Your task to perform on an android device: Open Chrome and go to the settings page Image 0: 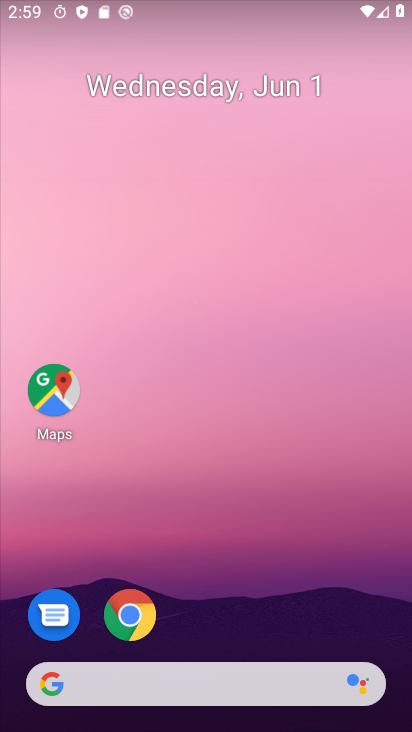
Step 0: drag from (332, 697) to (370, 33)
Your task to perform on an android device: Open Chrome and go to the settings page Image 1: 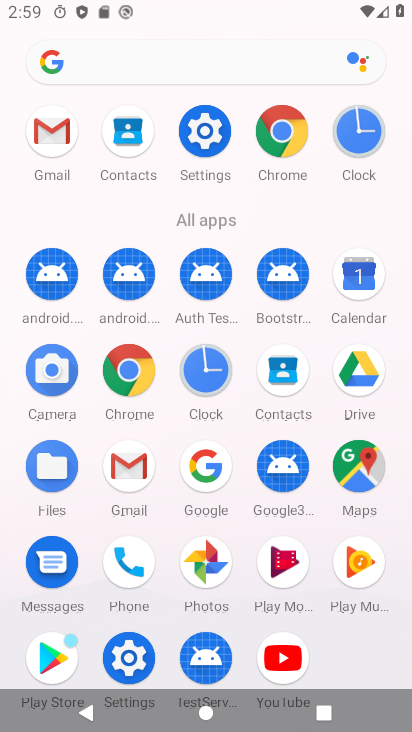
Step 1: click (130, 373)
Your task to perform on an android device: Open Chrome and go to the settings page Image 2: 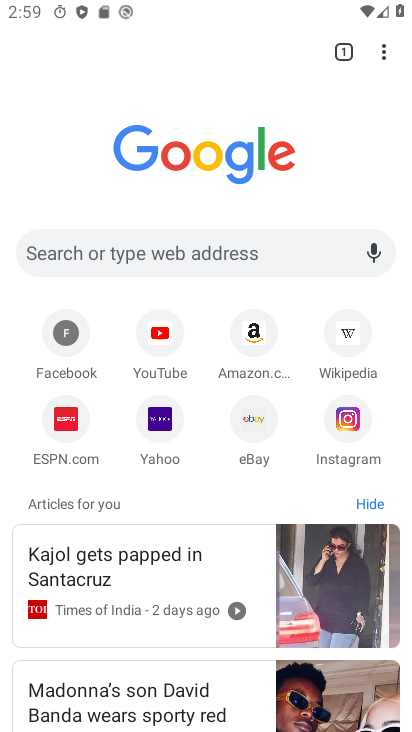
Step 2: drag from (391, 54) to (233, 446)
Your task to perform on an android device: Open Chrome and go to the settings page Image 3: 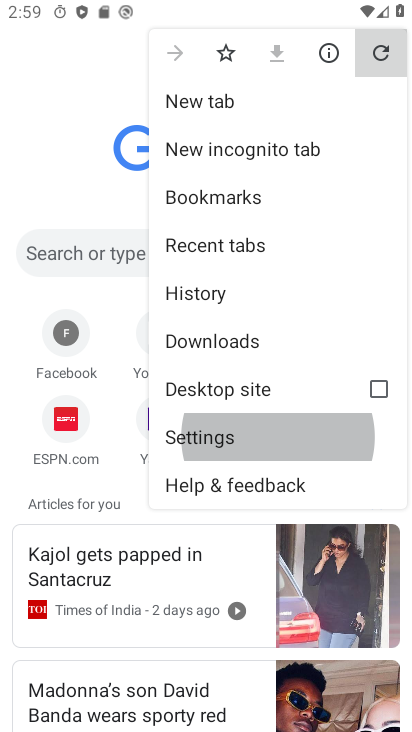
Step 3: click (232, 446)
Your task to perform on an android device: Open Chrome and go to the settings page Image 4: 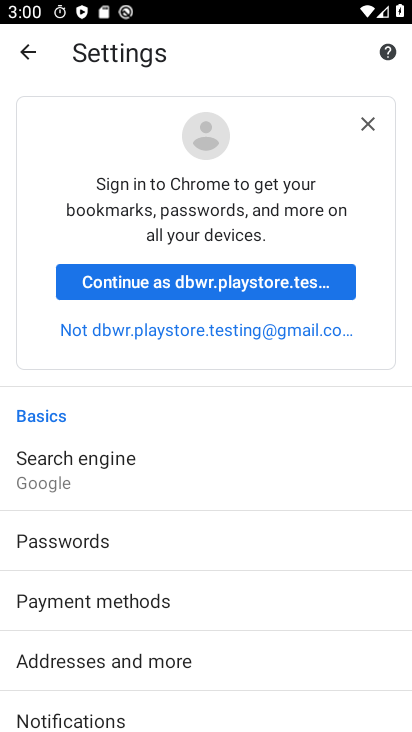
Step 4: task complete